Your task to perform on an android device: open a new tab in the chrome app Image 0: 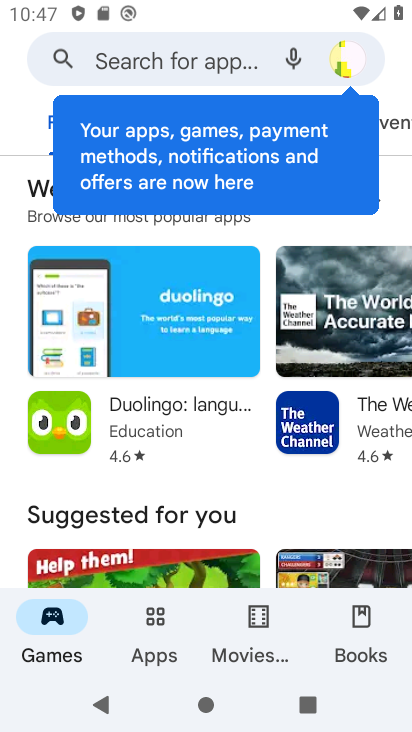
Step 0: press home button
Your task to perform on an android device: open a new tab in the chrome app Image 1: 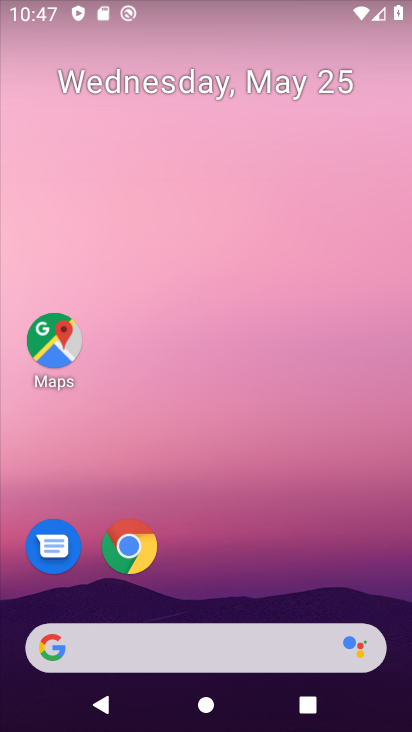
Step 1: click (149, 566)
Your task to perform on an android device: open a new tab in the chrome app Image 2: 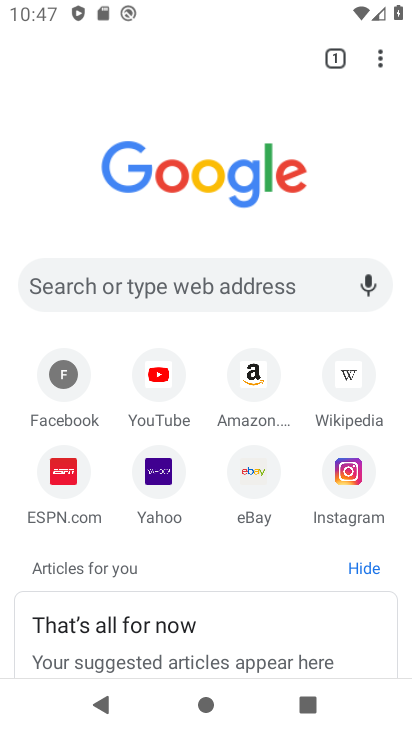
Step 2: task complete